Your task to perform on an android device: delete the emails in spam in the gmail app Image 0: 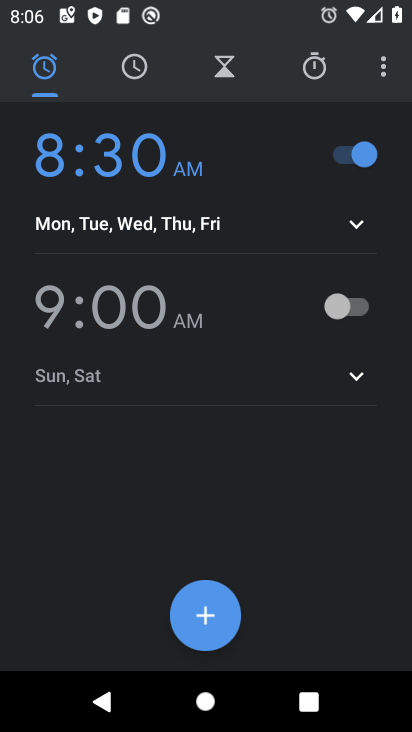
Step 0: press home button
Your task to perform on an android device: delete the emails in spam in the gmail app Image 1: 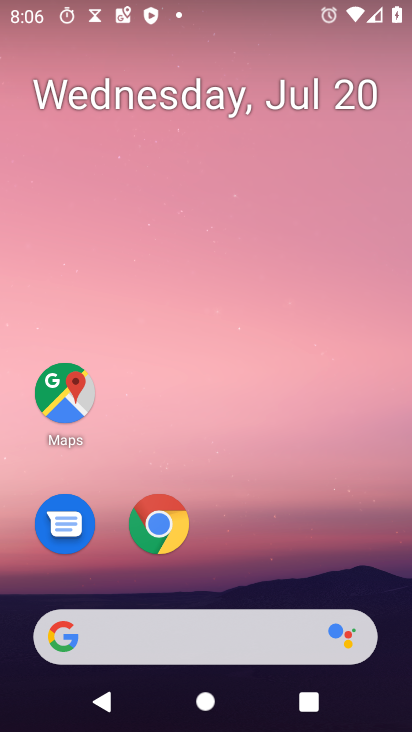
Step 1: drag from (235, 647) to (305, 173)
Your task to perform on an android device: delete the emails in spam in the gmail app Image 2: 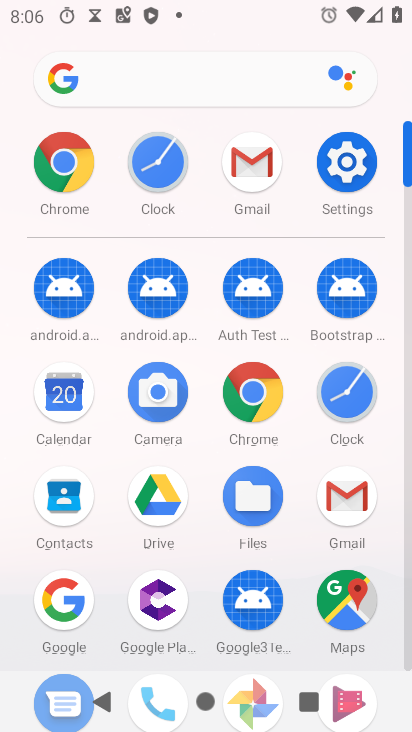
Step 2: click (261, 174)
Your task to perform on an android device: delete the emails in spam in the gmail app Image 3: 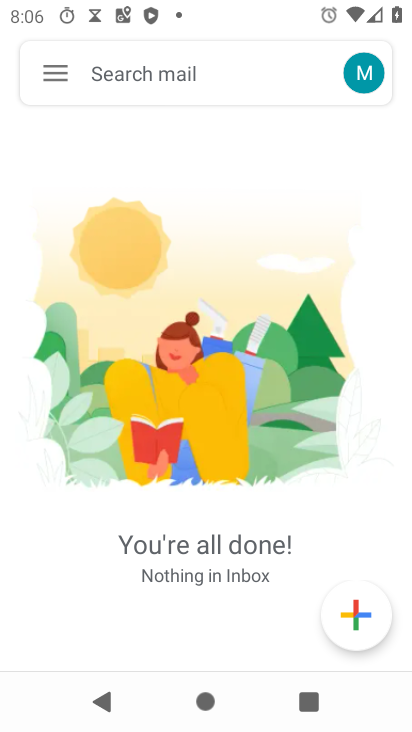
Step 3: click (52, 72)
Your task to perform on an android device: delete the emails in spam in the gmail app Image 4: 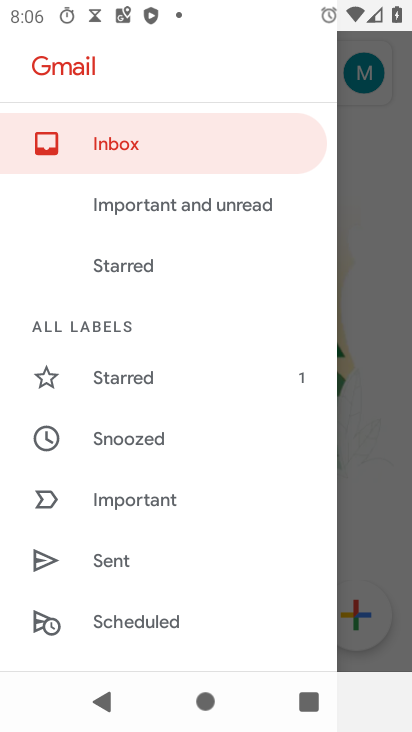
Step 4: drag from (167, 562) to (209, 195)
Your task to perform on an android device: delete the emails in spam in the gmail app Image 5: 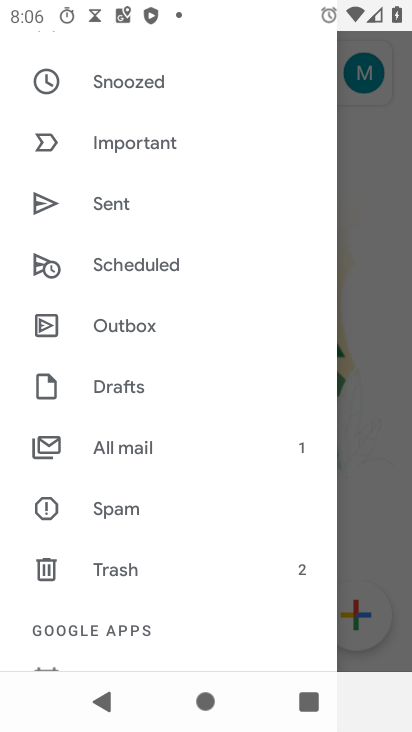
Step 5: click (129, 512)
Your task to perform on an android device: delete the emails in spam in the gmail app Image 6: 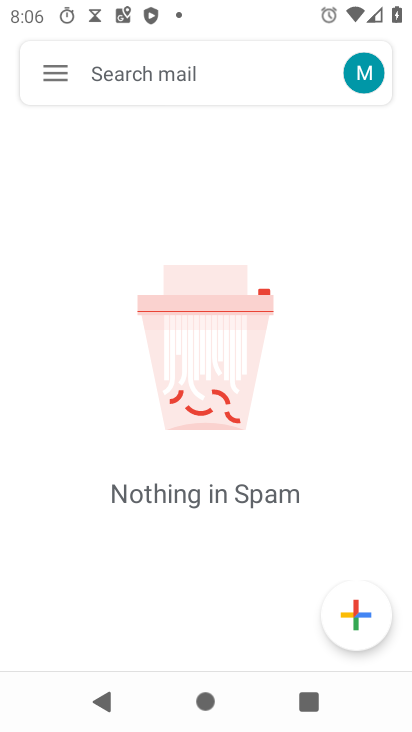
Step 6: task complete